Your task to perform on an android device: Go to network settings Image 0: 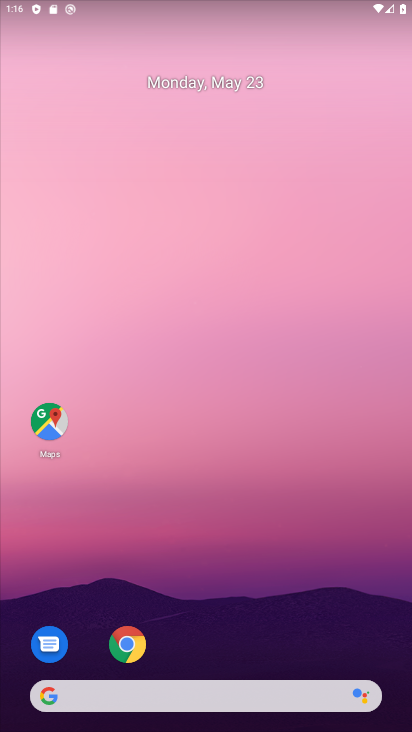
Step 0: drag from (244, 540) to (191, 24)
Your task to perform on an android device: Go to network settings Image 1: 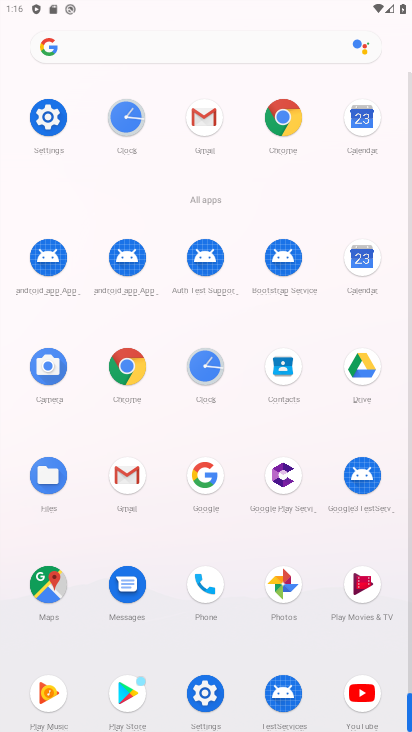
Step 1: drag from (5, 509) to (15, 176)
Your task to perform on an android device: Go to network settings Image 2: 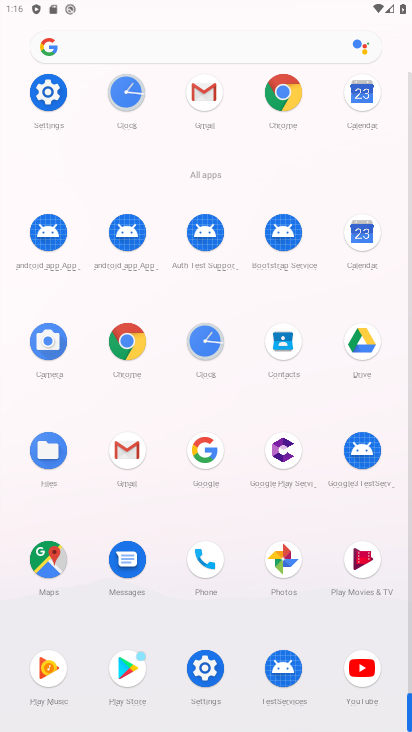
Step 2: click (201, 663)
Your task to perform on an android device: Go to network settings Image 3: 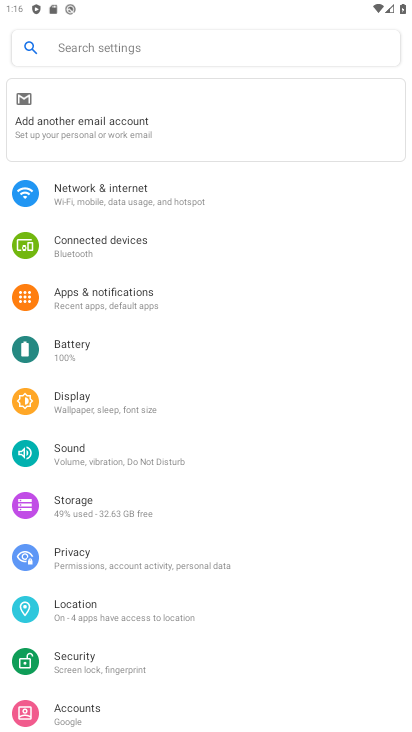
Step 3: click (133, 197)
Your task to perform on an android device: Go to network settings Image 4: 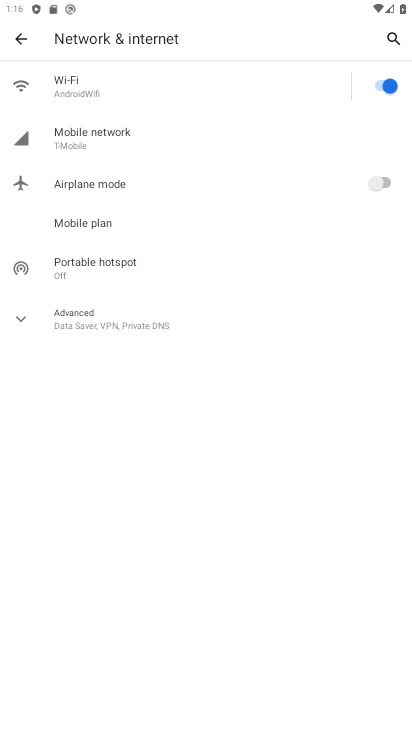
Step 4: click (140, 90)
Your task to perform on an android device: Go to network settings Image 5: 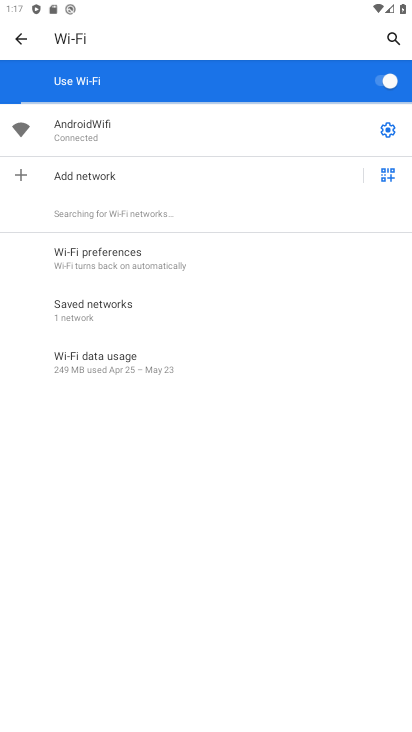
Step 5: task complete